Your task to perform on an android device: Open wifi settings Image 0: 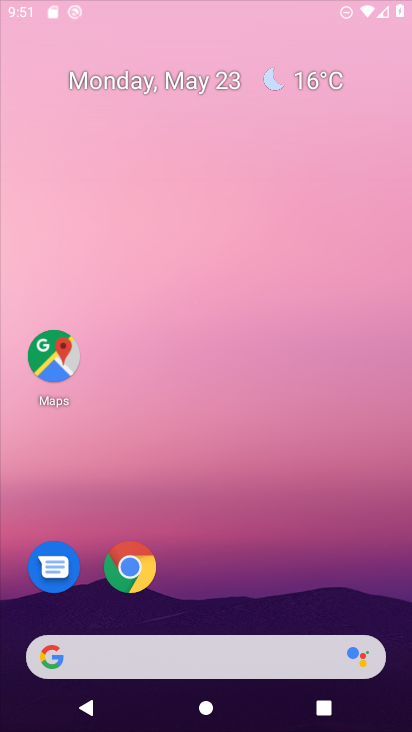
Step 0: drag from (141, 585) to (213, 144)
Your task to perform on an android device: Open wifi settings Image 1: 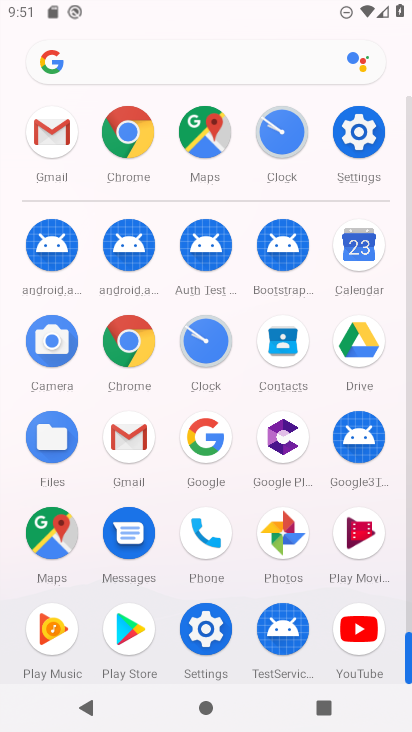
Step 1: click (359, 121)
Your task to perform on an android device: Open wifi settings Image 2: 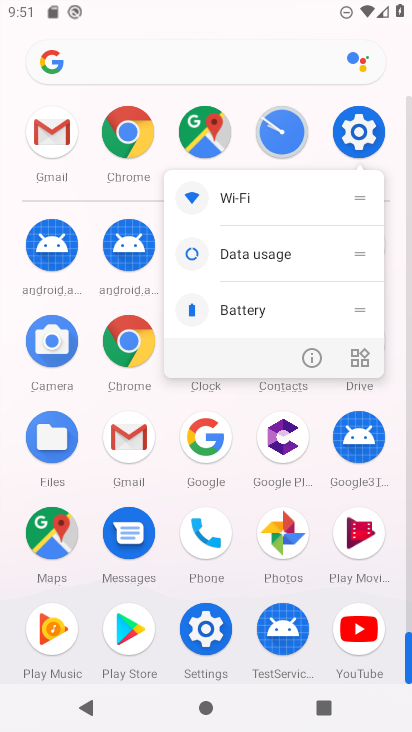
Step 2: click (313, 355)
Your task to perform on an android device: Open wifi settings Image 3: 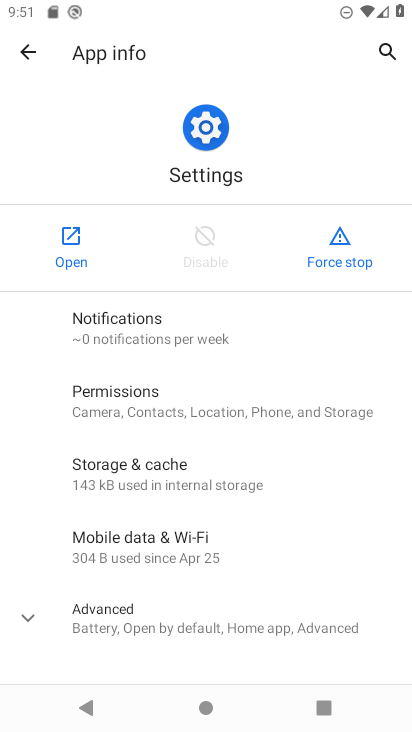
Step 3: click (68, 237)
Your task to perform on an android device: Open wifi settings Image 4: 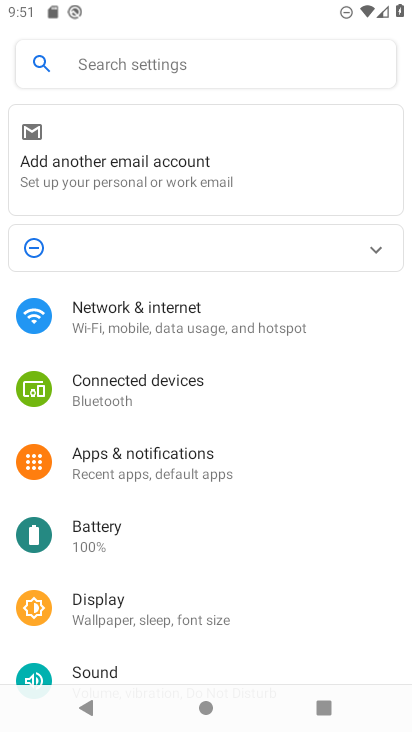
Step 4: drag from (187, 552) to (221, 319)
Your task to perform on an android device: Open wifi settings Image 5: 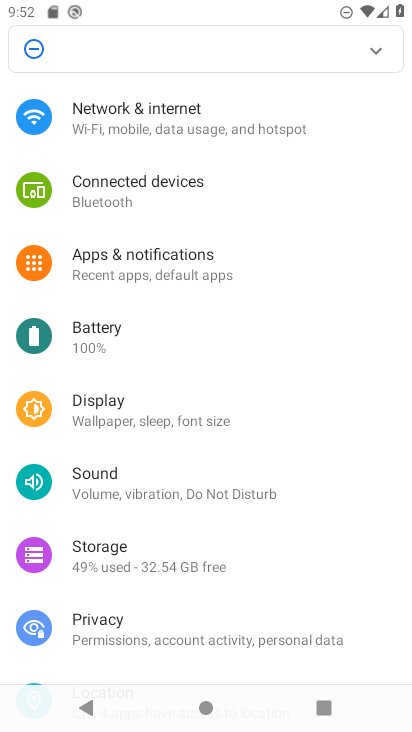
Step 5: click (144, 99)
Your task to perform on an android device: Open wifi settings Image 6: 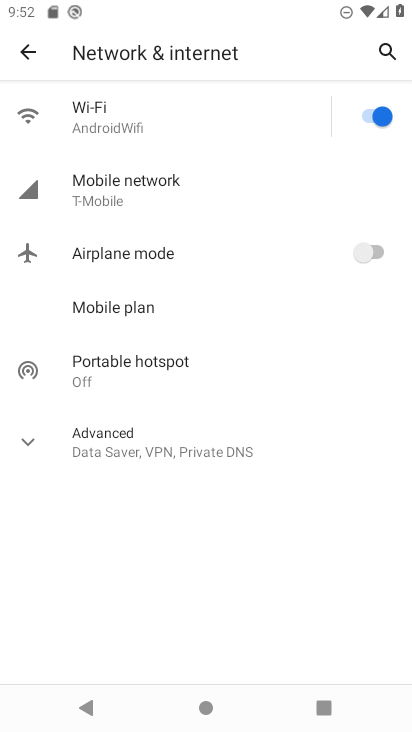
Step 6: click (185, 120)
Your task to perform on an android device: Open wifi settings Image 7: 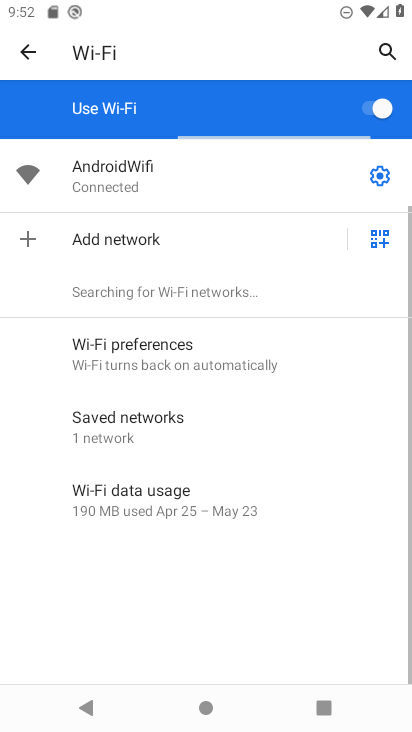
Step 7: drag from (261, 517) to (272, 138)
Your task to perform on an android device: Open wifi settings Image 8: 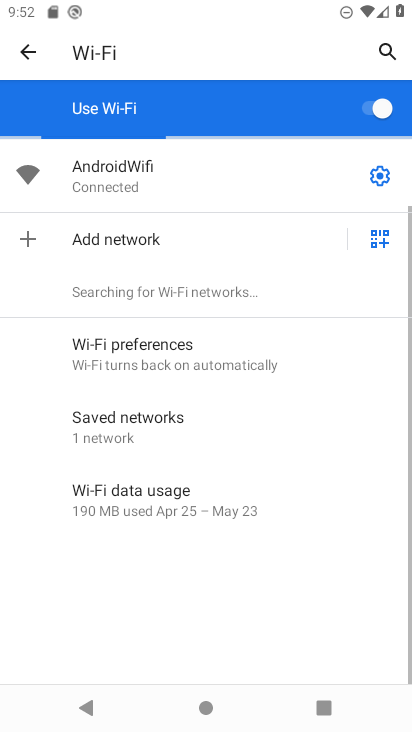
Step 8: click (371, 181)
Your task to perform on an android device: Open wifi settings Image 9: 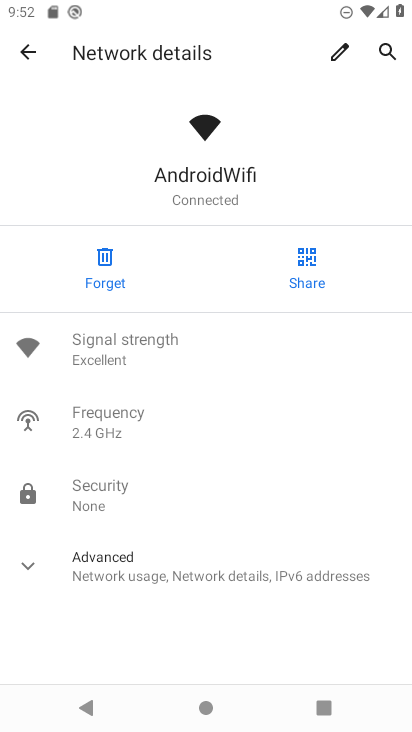
Step 9: task complete